Your task to perform on an android device: toggle airplane mode Image 0: 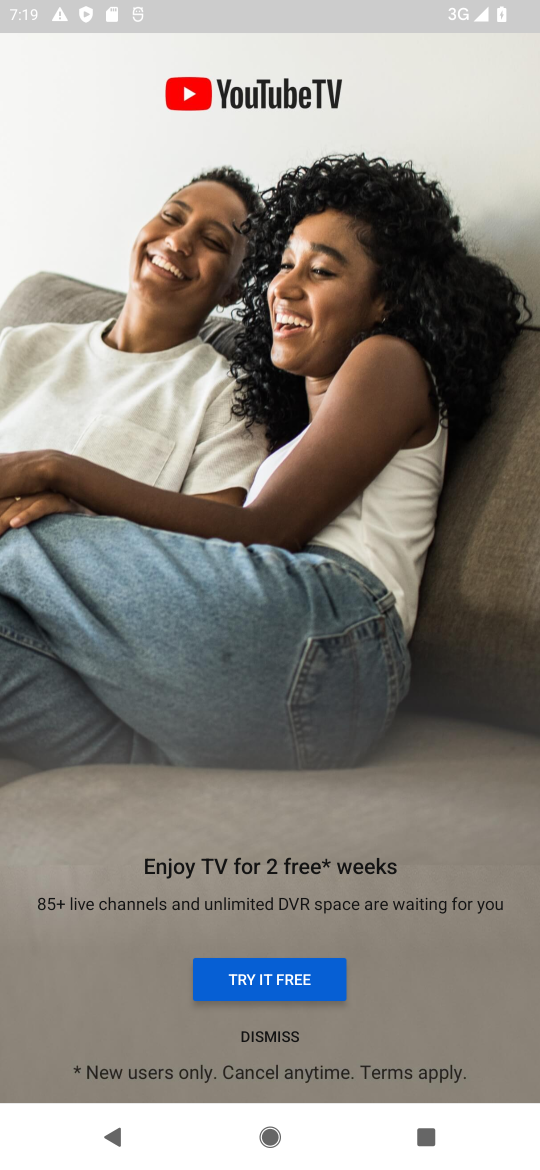
Step 0: press home button
Your task to perform on an android device: toggle airplane mode Image 1: 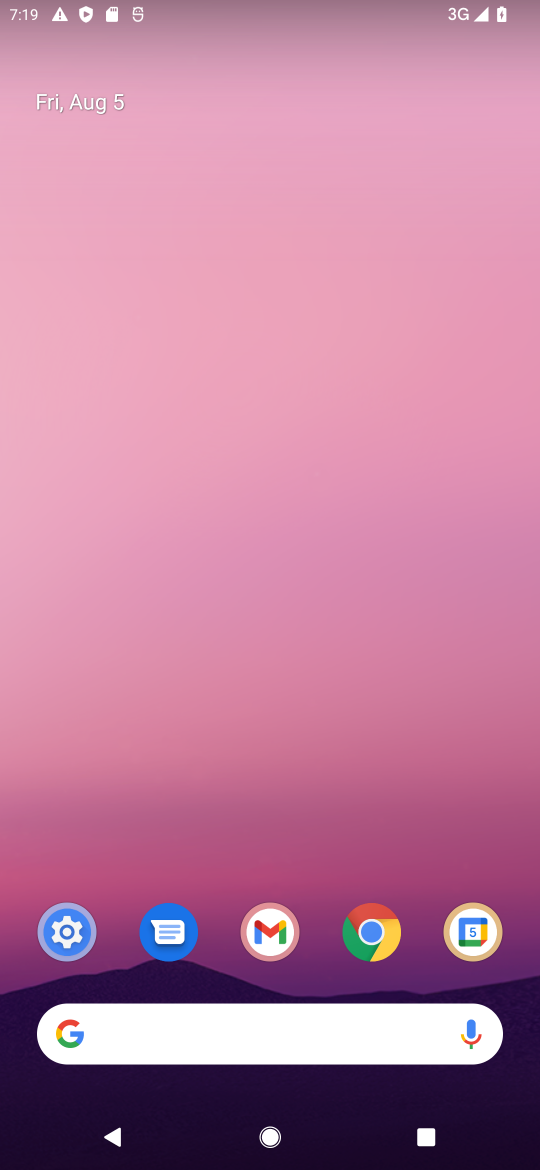
Step 1: drag from (198, 1038) to (311, 165)
Your task to perform on an android device: toggle airplane mode Image 2: 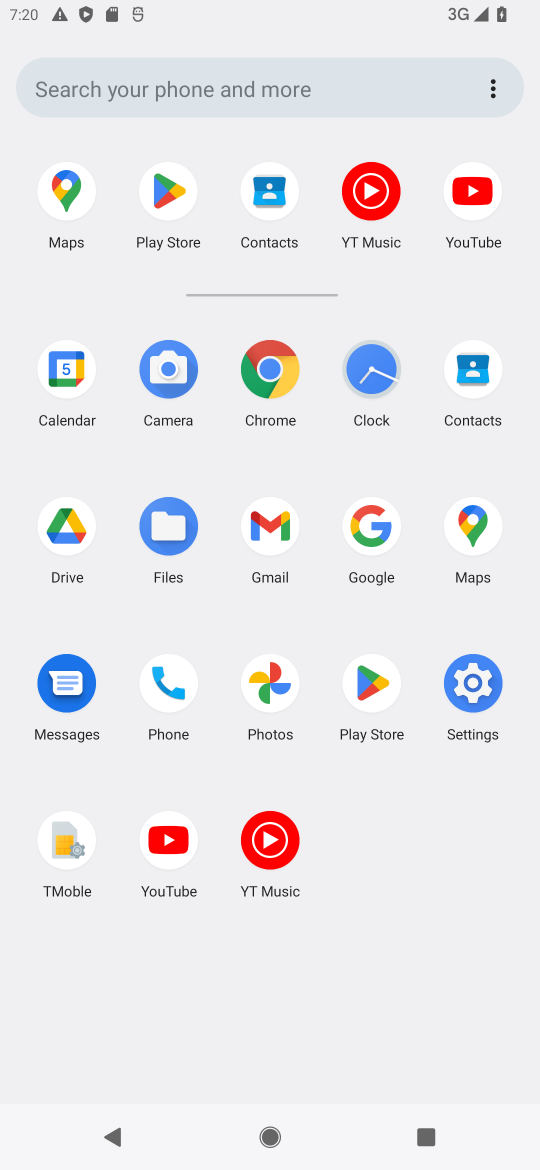
Step 2: click (472, 685)
Your task to perform on an android device: toggle airplane mode Image 3: 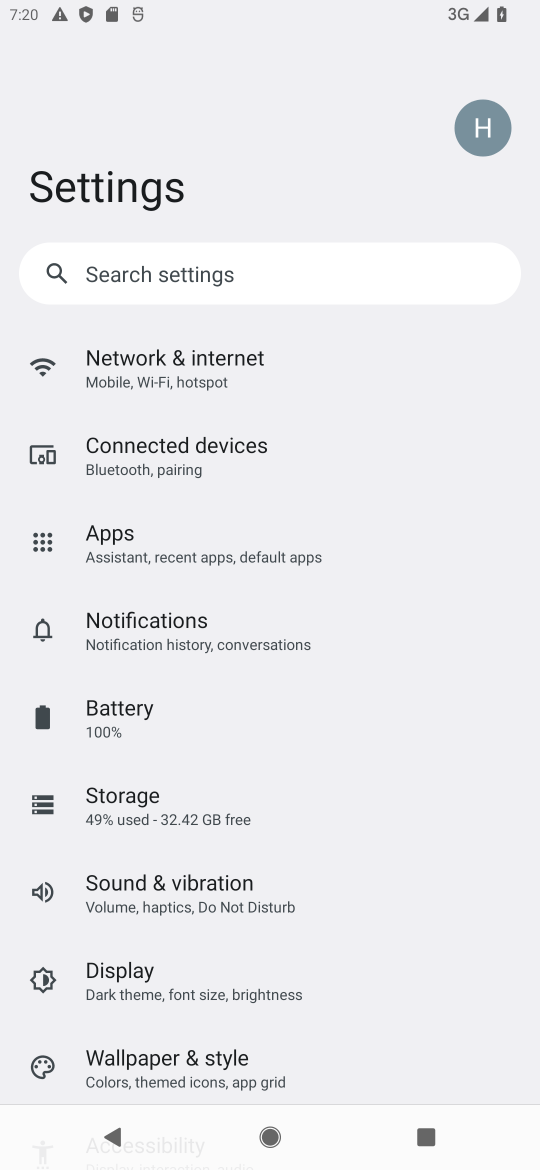
Step 3: click (194, 379)
Your task to perform on an android device: toggle airplane mode Image 4: 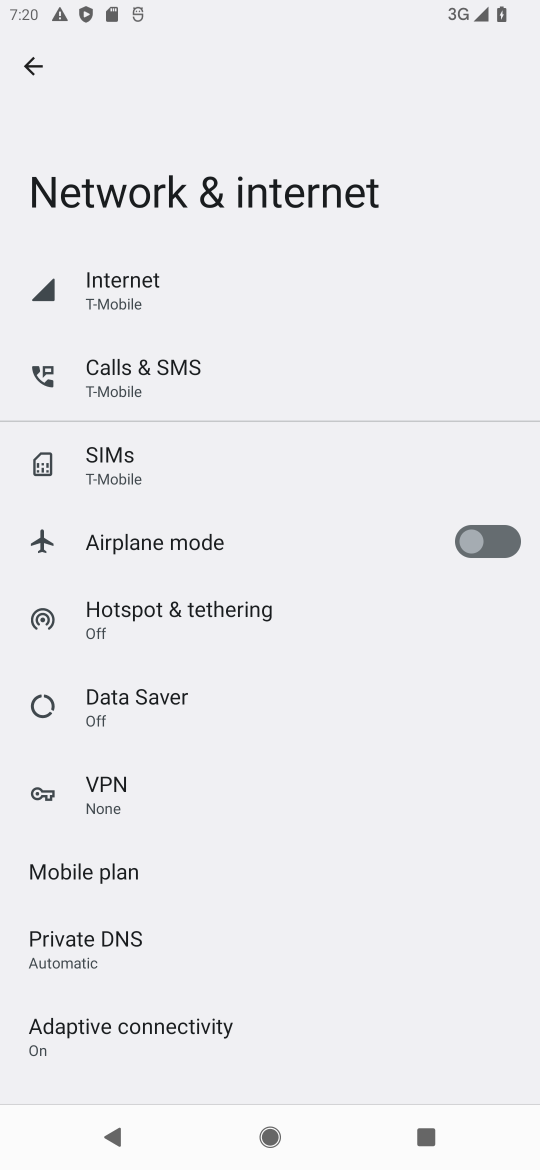
Step 4: click (461, 553)
Your task to perform on an android device: toggle airplane mode Image 5: 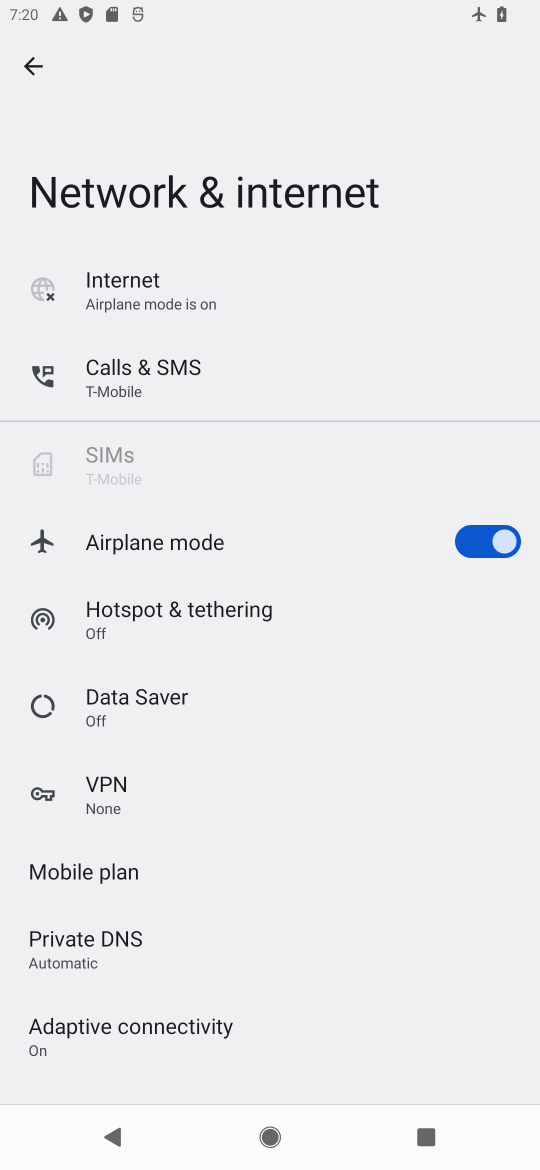
Step 5: task complete